Your task to perform on an android device: turn off sleep mode Image 0: 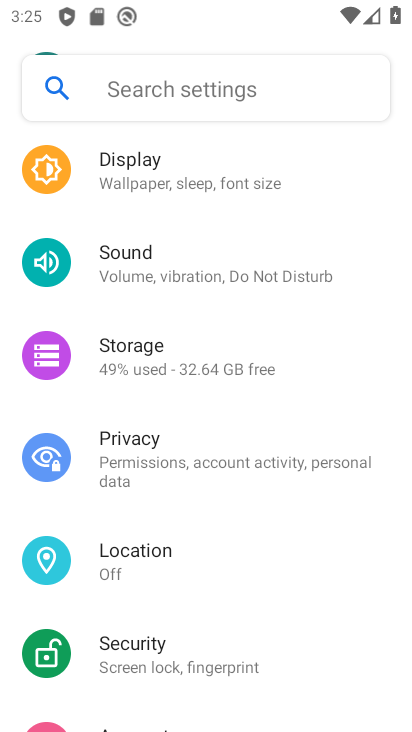
Step 0: click (176, 177)
Your task to perform on an android device: turn off sleep mode Image 1: 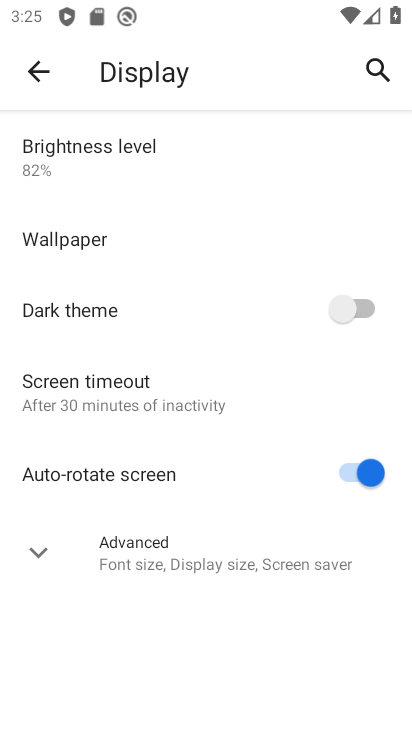
Step 1: click (141, 386)
Your task to perform on an android device: turn off sleep mode Image 2: 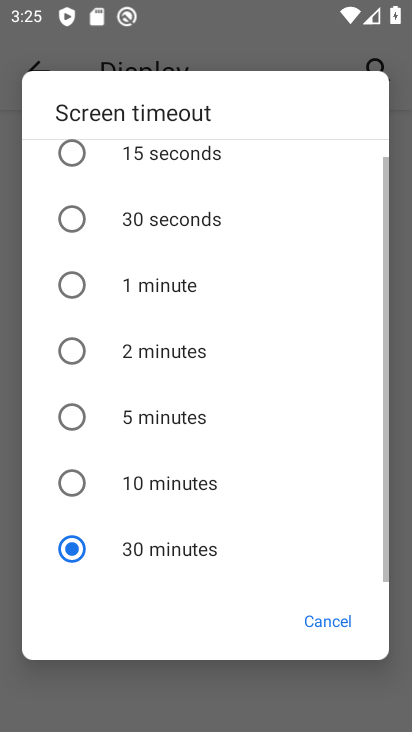
Step 2: task complete